Your task to perform on an android device: open device folders in google photos Image 0: 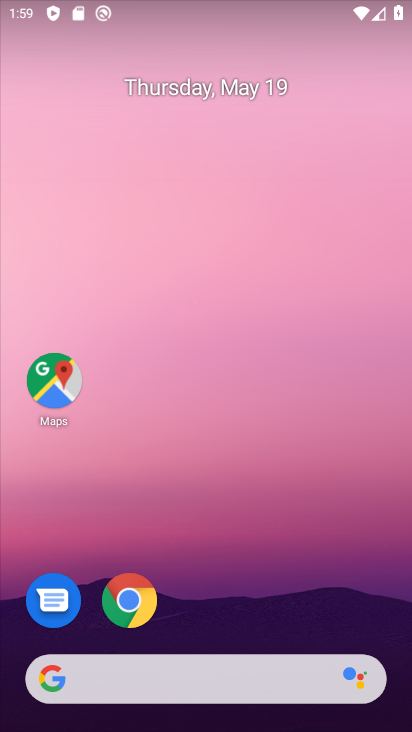
Step 0: click (224, 342)
Your task to perform on an android device: open device folders in google photos Image 1: 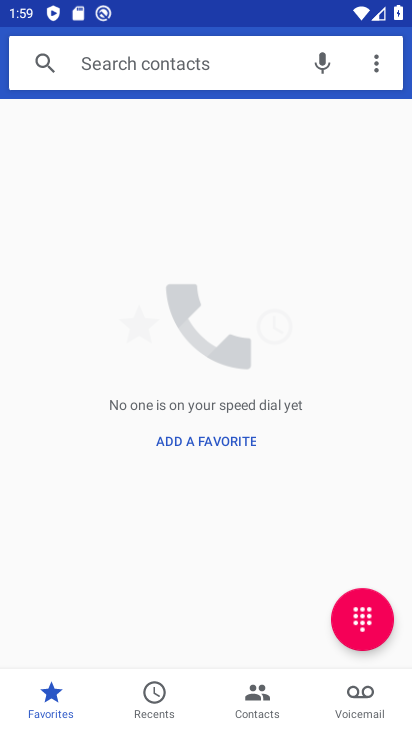
Step 1: press home button
Your task to perform on an android device: open device folders in google photos Image 2: 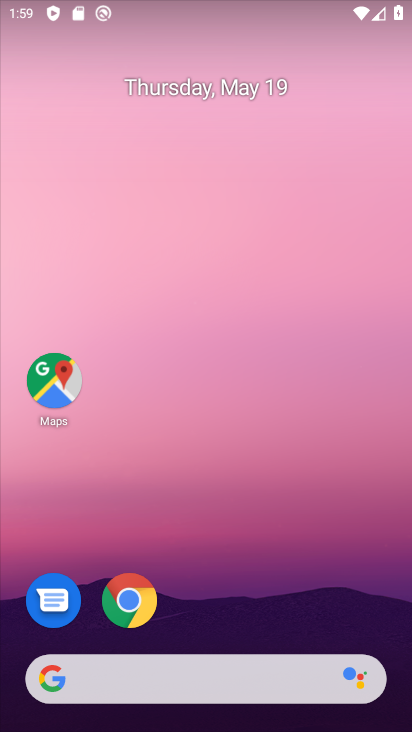
Step 2: drag from (173, 654) to (185, 229)
Your task to perform on an android device: open device folders in google photos Image 3: 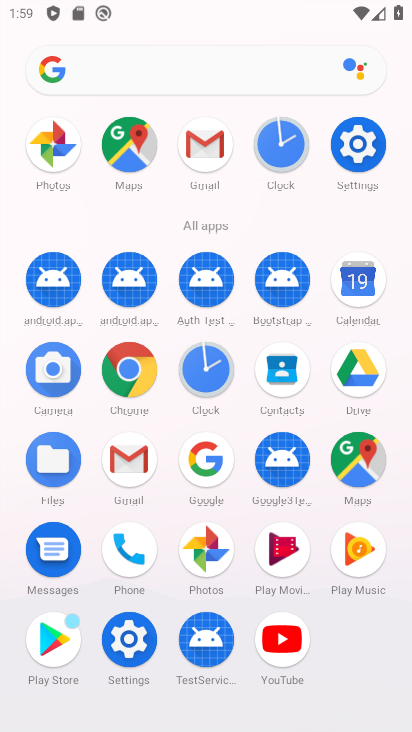
Step 3: click (39, 153)
Your task to perform on an android device: open device folders in google photos Image 4: 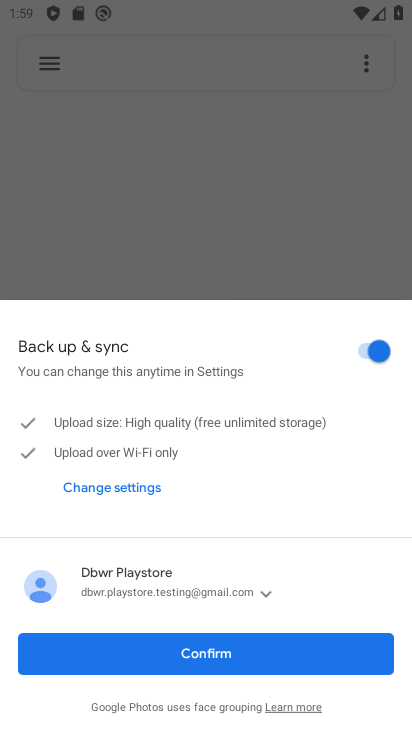
Step 4: click (226, 654)
Your task to perform on an android device: open device folders in google photos Image 5: 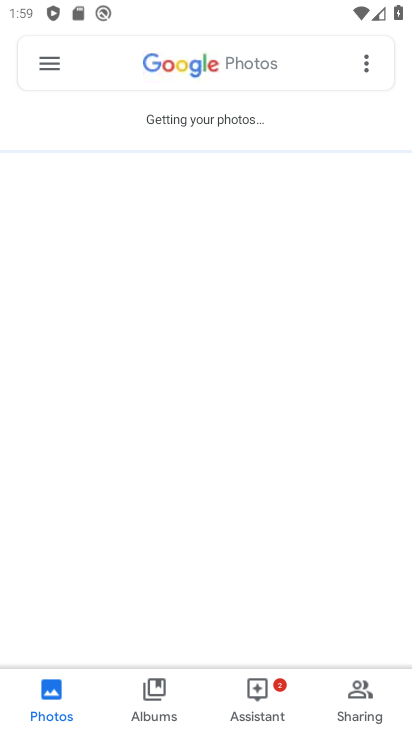
Step 5: click (45, 62)
Your task to perform on an android device: open device folders in google photos Image 6: 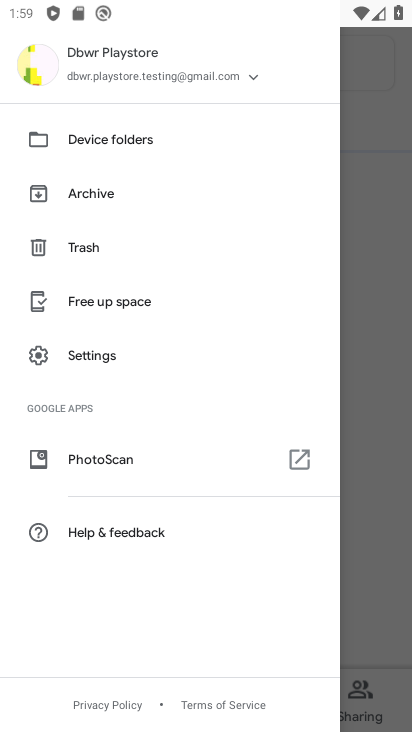
Step 6: click (87, 138)
Your task to perform on an android device: open device folders in google photos Image 7: 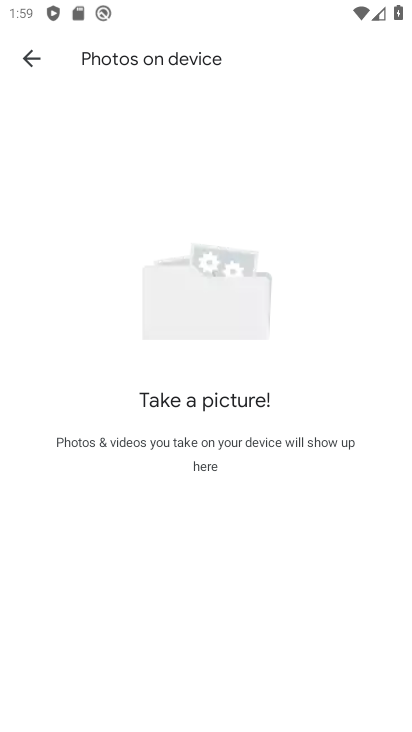
Step 7: task complete